Your task to perform on an android device: Go to Android settings Image 0: 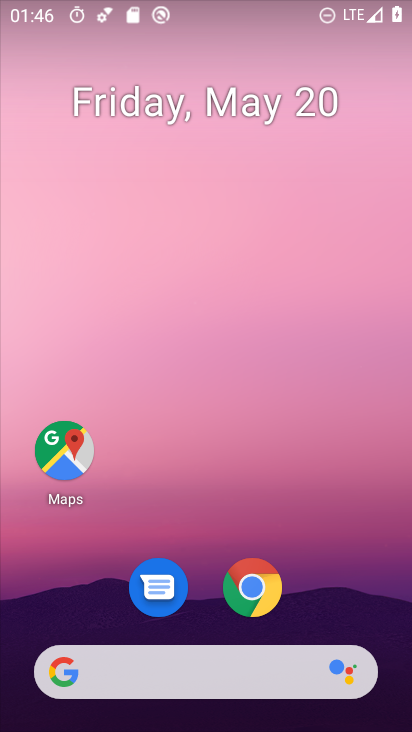
Step 0: drag from (371, 614) to (374, 171)
Your task to perform on an android device: Go to Android settings Image 1: 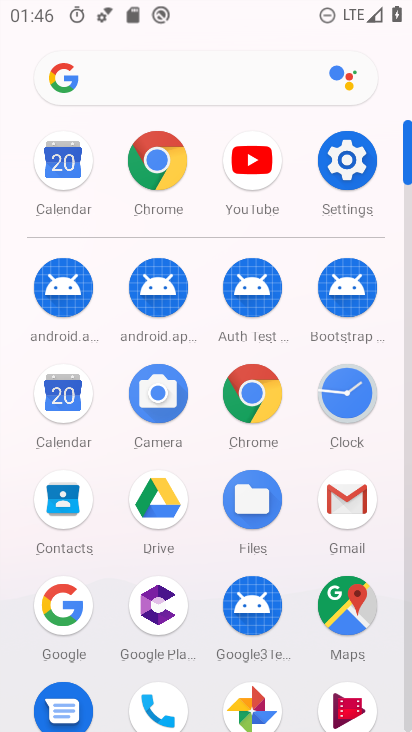
Step 1: click (345, 172)
Your task to perform on an android device: Go to Android settings Image 2: 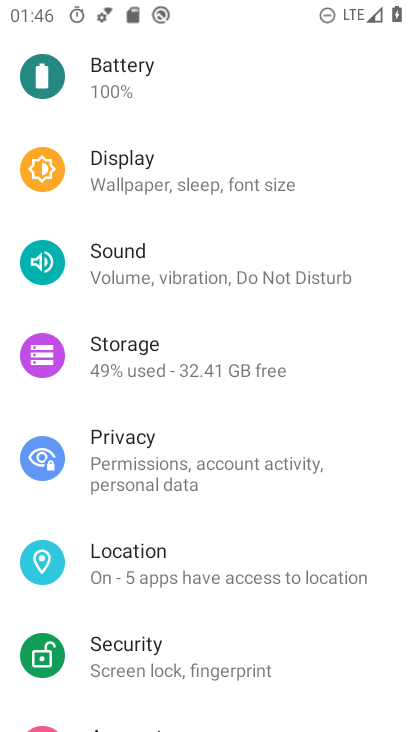
Step 2: drag from (374, 246) to (366, 467)
Your task to perform on an android device: Go to Android settings Image 3: 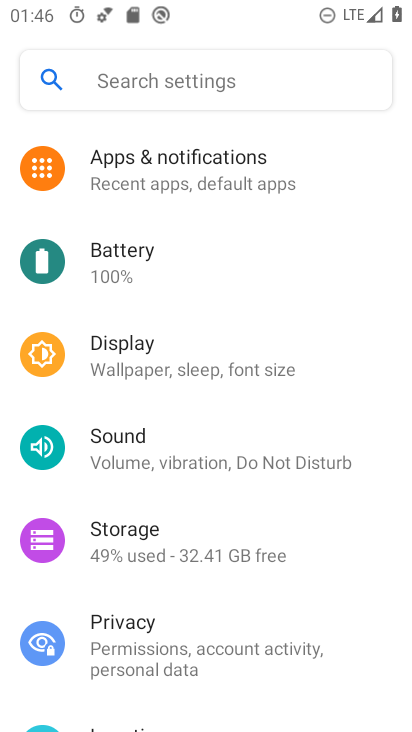
Step 3: drag from (358, 220) to (353, 413)
Your task to perform on an android device: Go to Android settings Image 4: 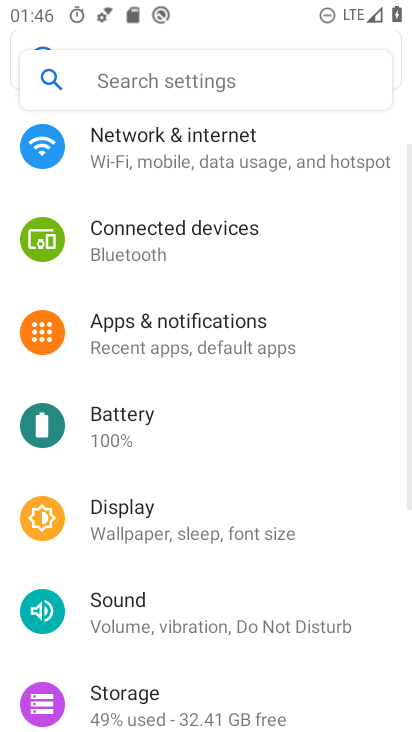
Step 4: drag from (350, 209) to (341, 392)
Your task to perform on an android device: Go to Android settings Image 5: 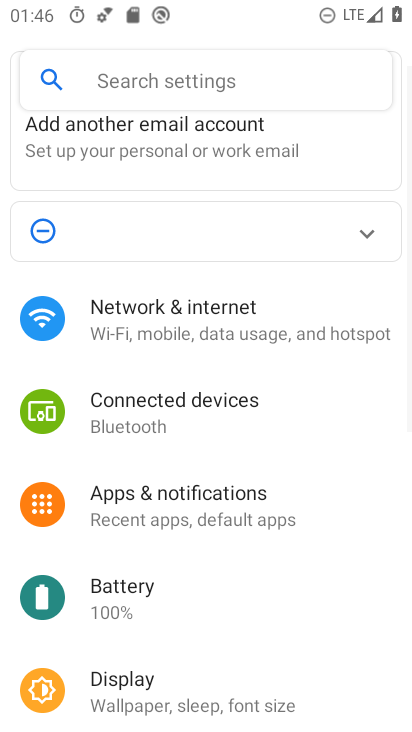
Step 5: drag from (341, 547) to (346, 407)
Your task to perform on an android device: Go to Android settings Image 6: 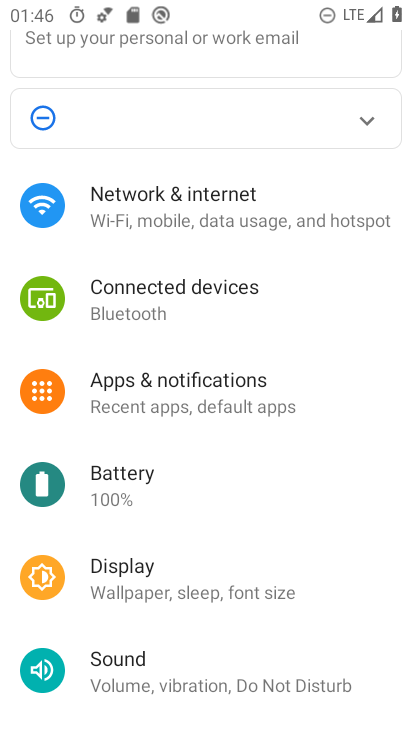
Step 6: drag from (343, 516) to (346, 441)
Your task to perform on an android device: Go to Android settings Image 7: 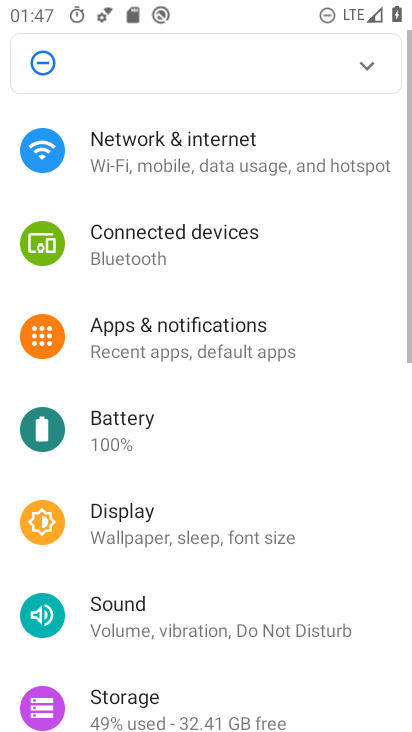
Step 7: drag from (340, 553) to (343, 450)
Your task to perform on an android device: Go to Android settings Image 8: 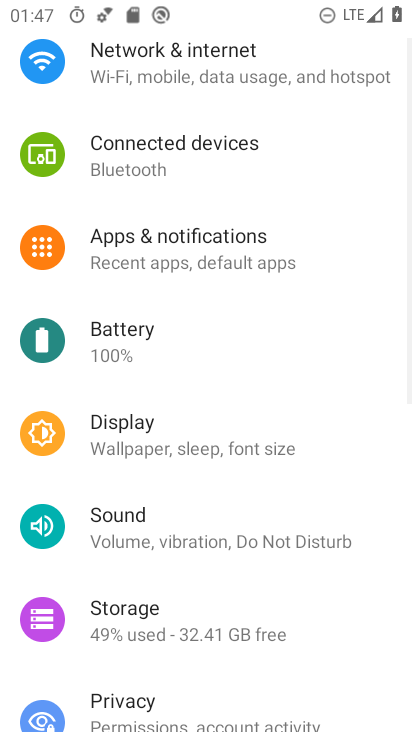
Step 8: drag from (338, 581) to (347, 488)
Your task to perform on an android device: Go to Android settings Image 9: 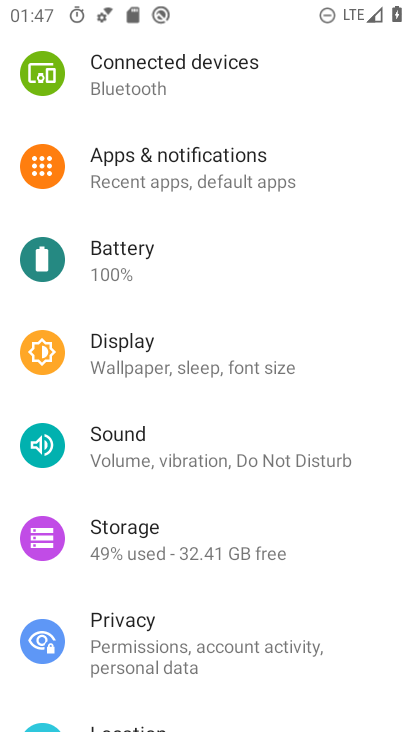
Step 9: drag from (283, 619) to (294, 513)
Your task to perform on an android device: Go to Android settings Image 10: 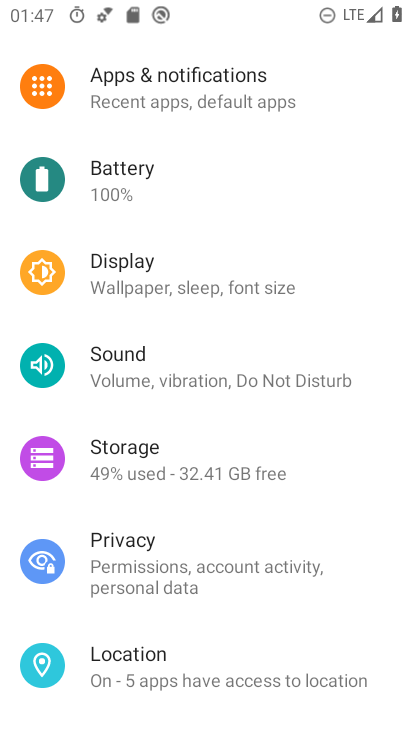
Step 10: drag from (319, 584) to (340, 446)
Your task to perform on an android device: Go to Android settings Image 11: 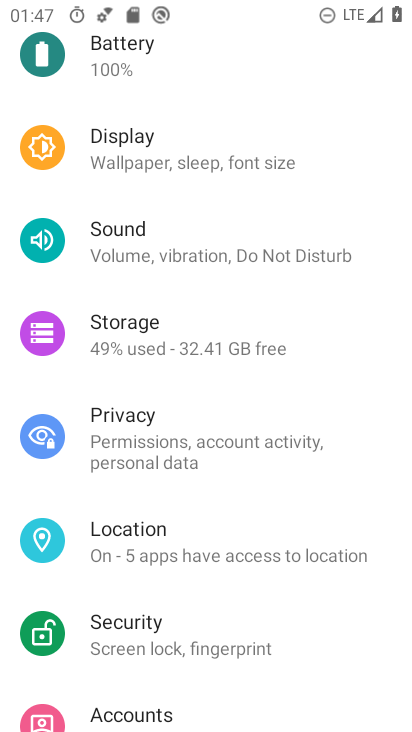
Step 11: drag from (333, 585) to (340, 480)
Your task to perform on an android device: Go to Android settings Image 12: 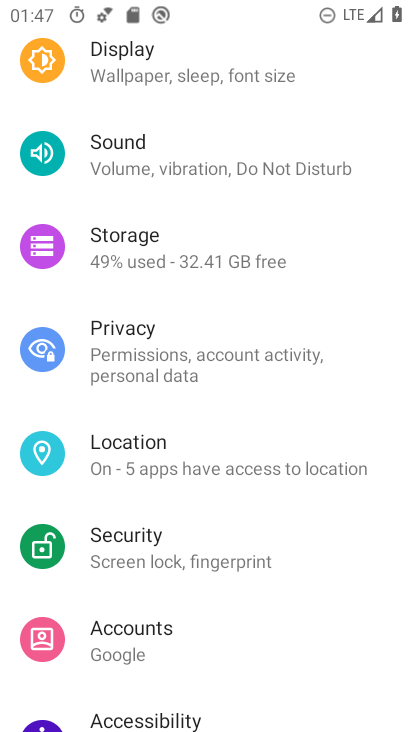
Step 12: drag from (339, 595) to (347, 505)
Your task to perform on an android device: Go to Android settings Image 13: 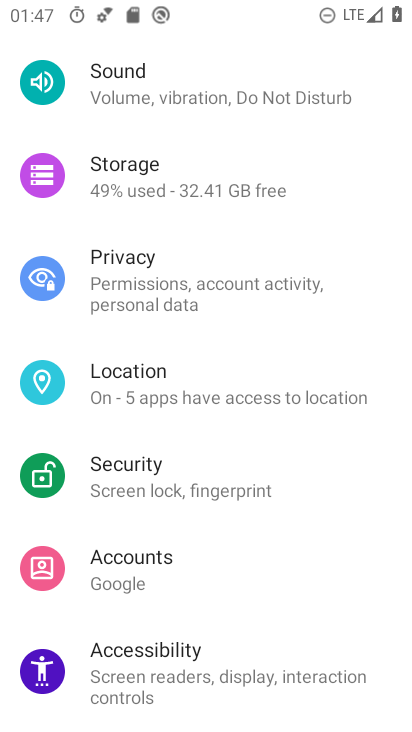
Step 13: drag from (322, 613) to (319, 502)
Your task to perform on an android device: Go to Android settings Image 14: 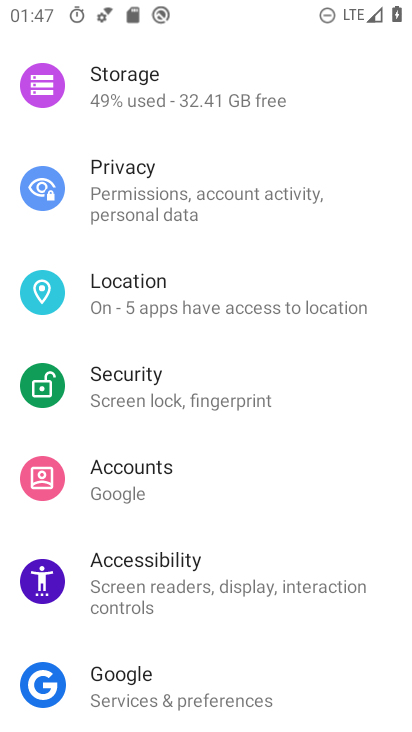
Step 14: drag from (304, 633) to (306, 509)
Your task to perform on an android device: Go to Android settings Image 15: 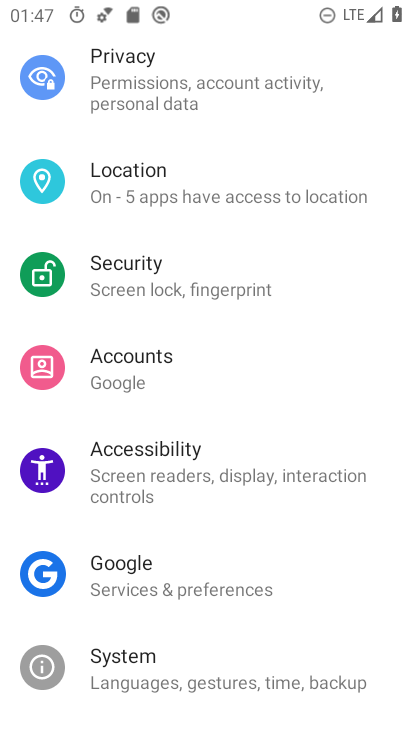
Step 15: drag from (303, 634) to (306, 485)
Your task to perform on an android device: Go to Android settings Image 16: 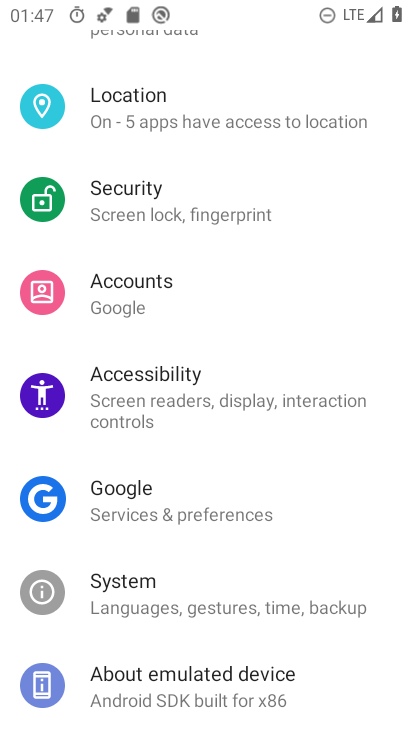
Step 16: click (279, 608)
Your task to perform on an android device: Go to Android settings Image 17: 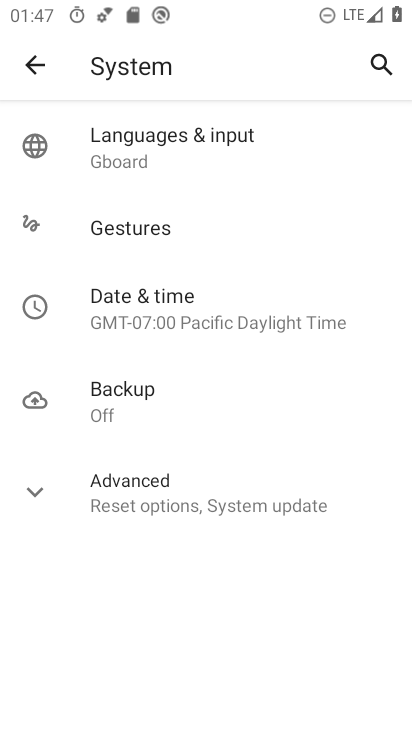
Step 17: click (220, 496)
Your task to perform on an android device: Go to Android settings Image 18: 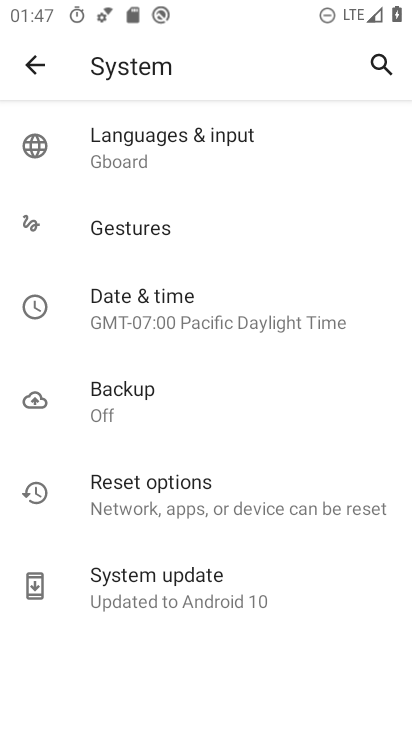
Step 18: task complete